Your task to perform on an android device: open app "Walmart Shopping & Grocery" (install if not already installed) and enter user name: "Hans@icloud.com" and password: "executing" Image 0: 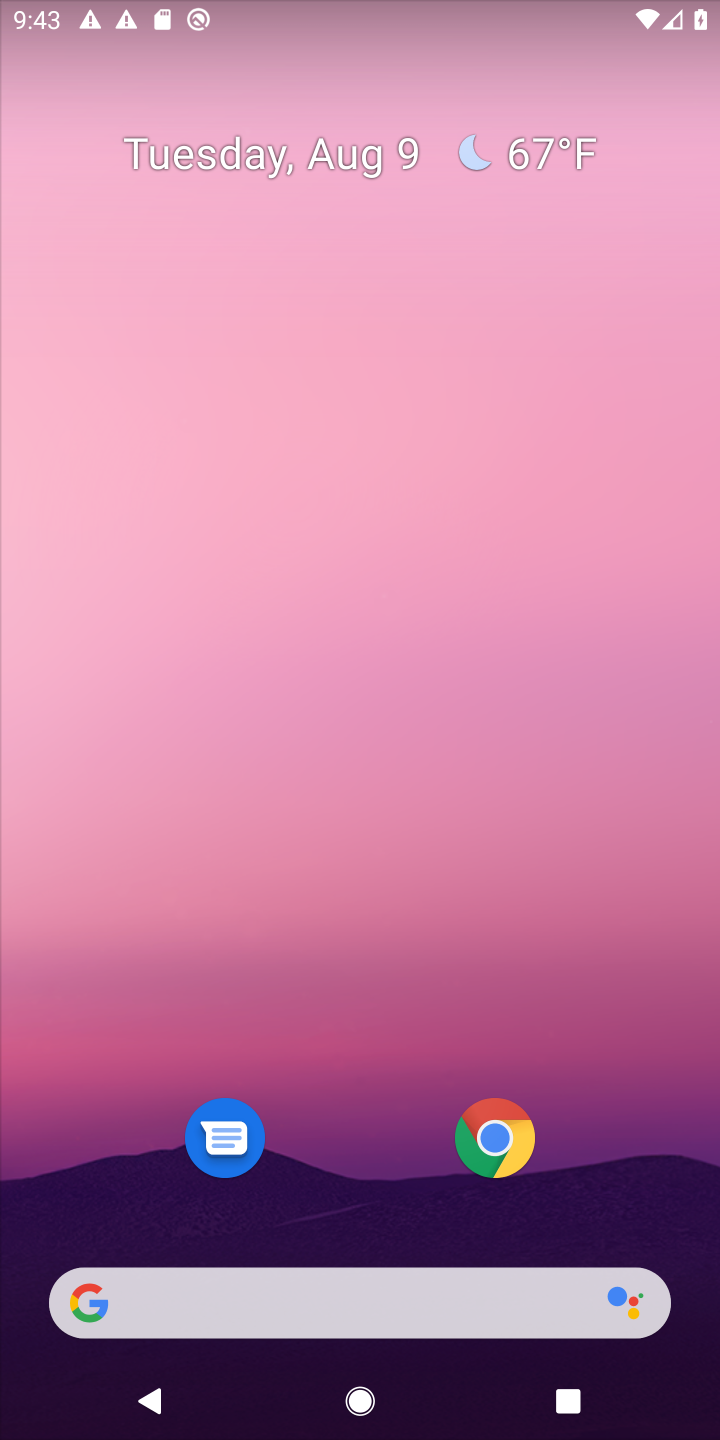
Step 0: drag from (342, 1231) to (369, 3)
Your task to perform on an android device: open app "Walmart Shopping & Grocery" (install if not already installed) and enter user name: "Hans@icloud.com" and password: "executing" Image 1: 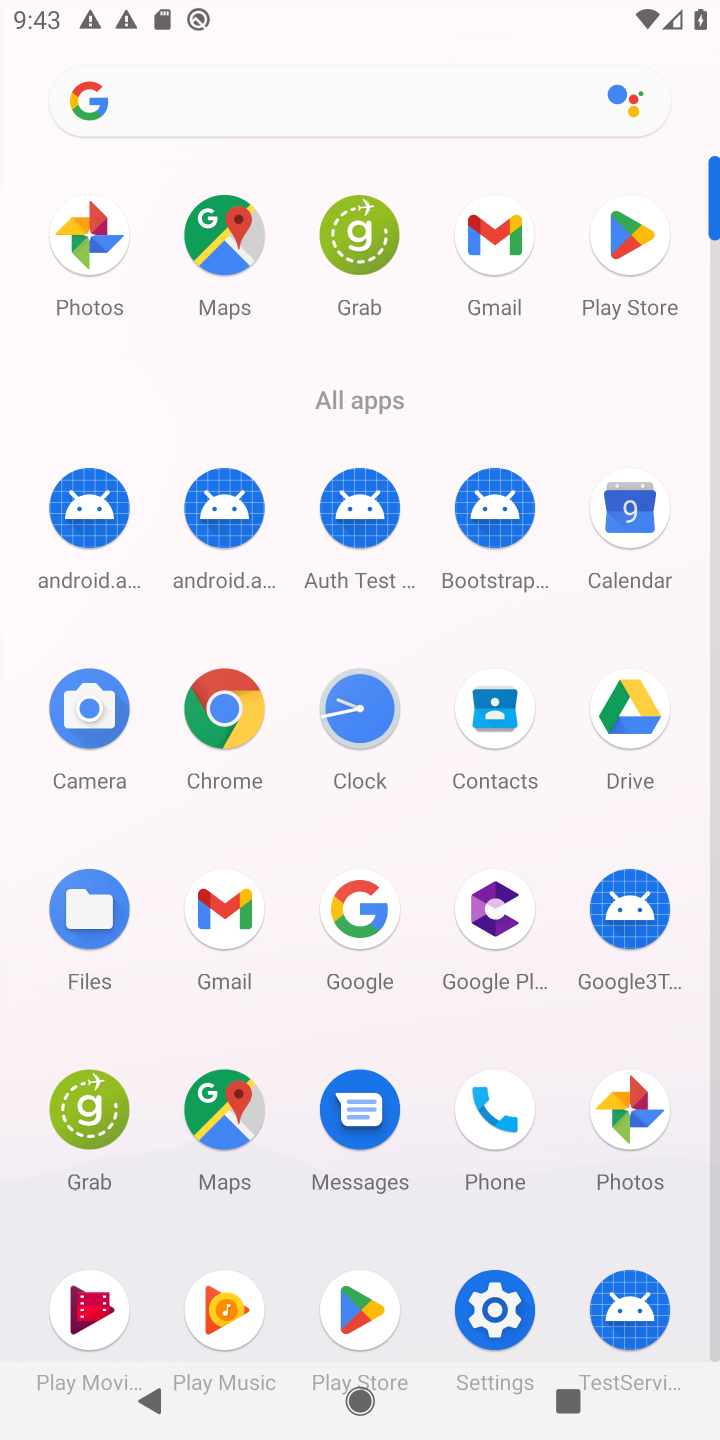
Step 1: click (354, 1299)
Your task to perform on an android device: open app "Walmart Shopping & Grocery" (install if not already installed) and enter user name: "Hans@icloud.com" and password: "executing" Image 2: 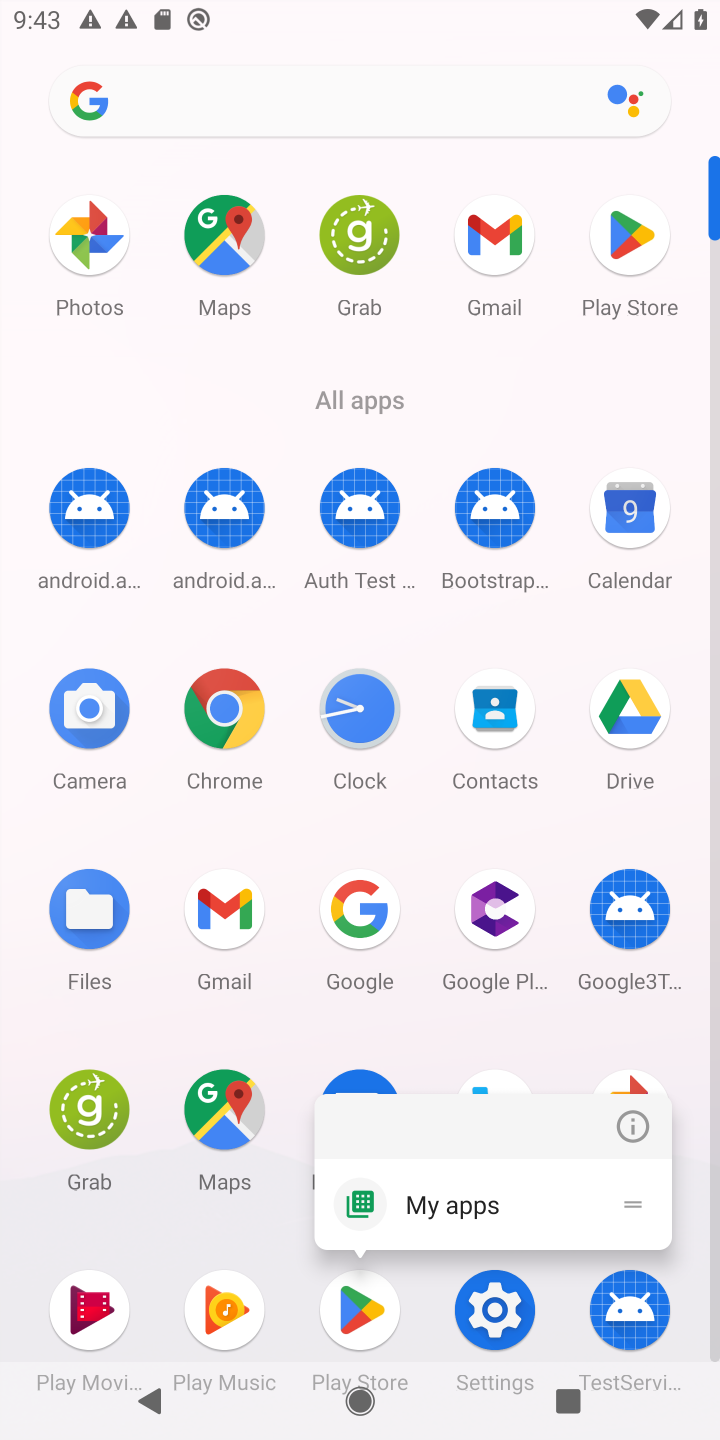
Step 2: click (354, 1296)
Your task to perform on an android device: open app "Walmart Shopping & Grocery" (install if not already installed) and enter user name: "Hans@icloud.com" and password: "executing" Image 3: 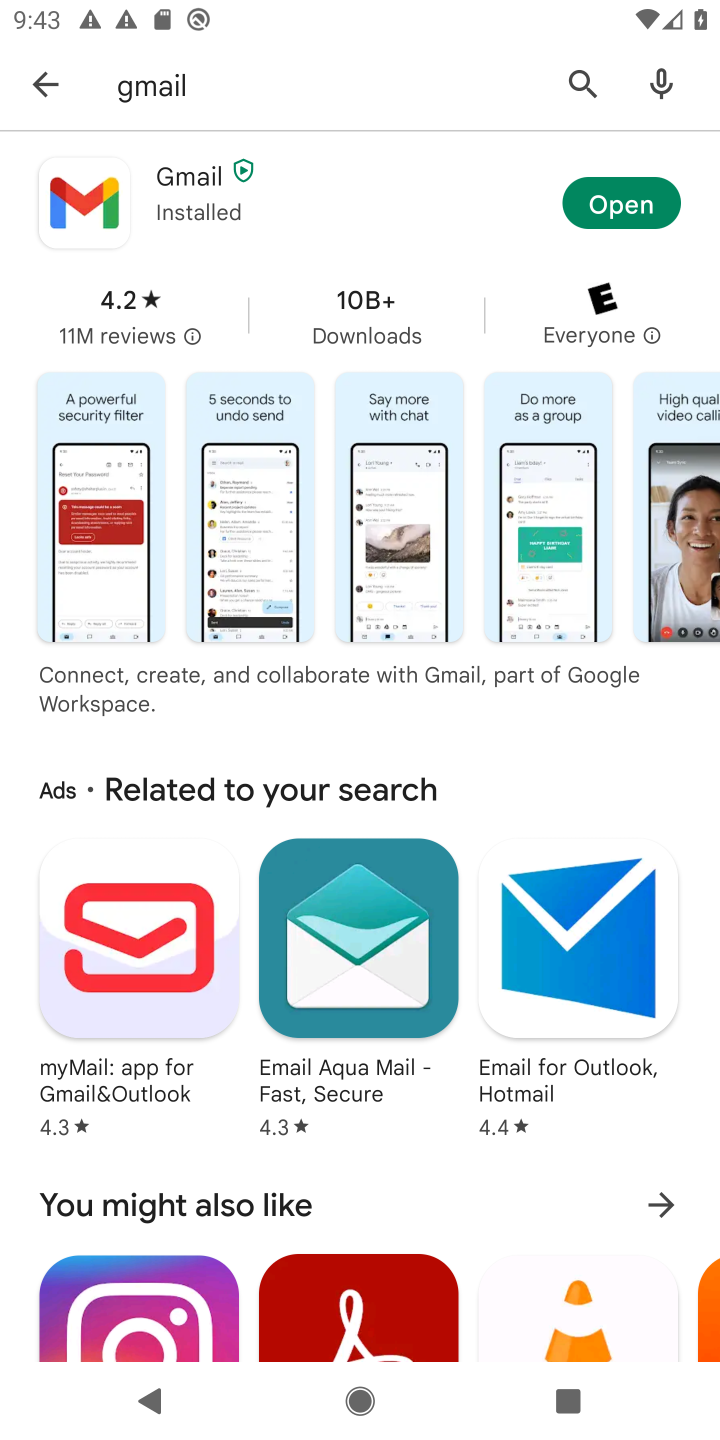
Step 3: click (574, 77)
Your task to perform on an android device: open app "Walmart Shopping & Grocery" (install if not already installed) and enter user name: "Hans@icloud.com" and password: "executing" Image 4: 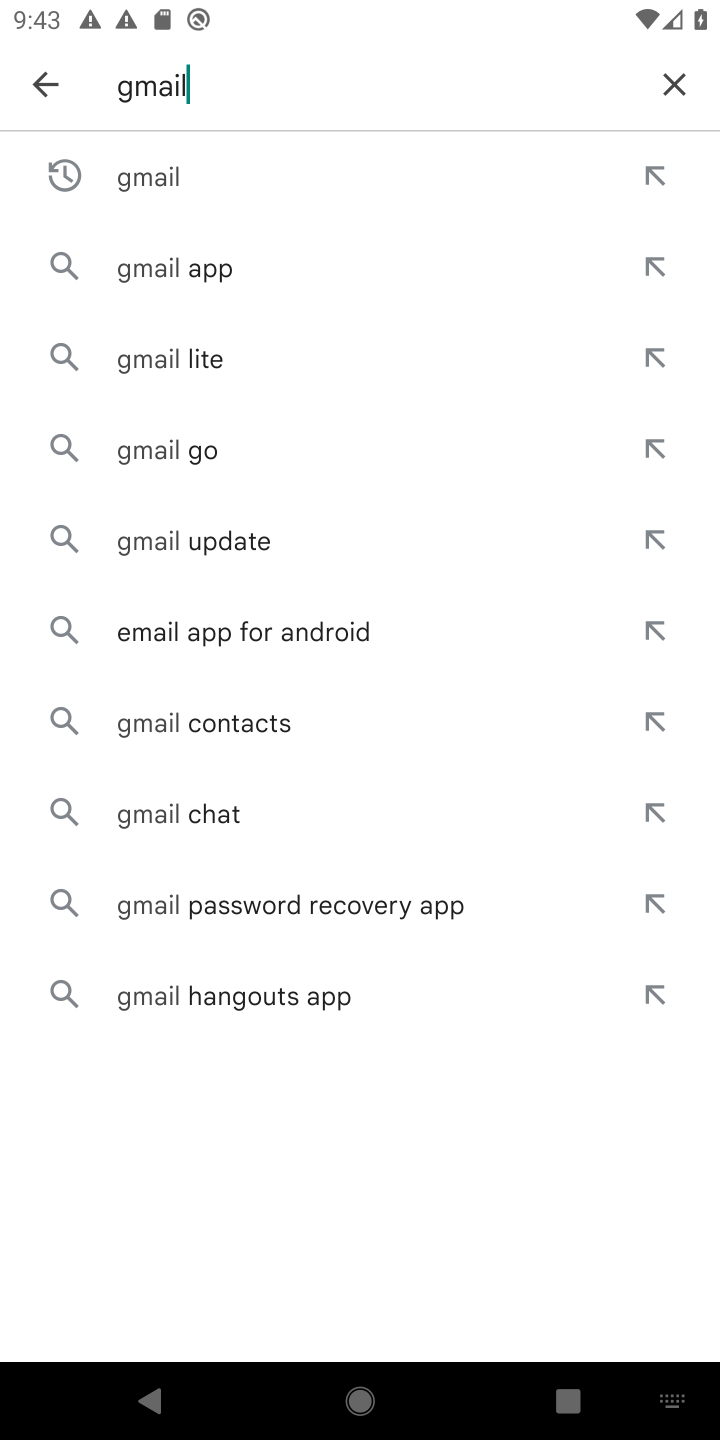
Step 4: click (670, 80)
Your task to perform on an android device: open app "Walmart Shopping & Grocery" (install if not already installed) and enter user name: "Hans@icloud.com" and password: "executing" Image 5: 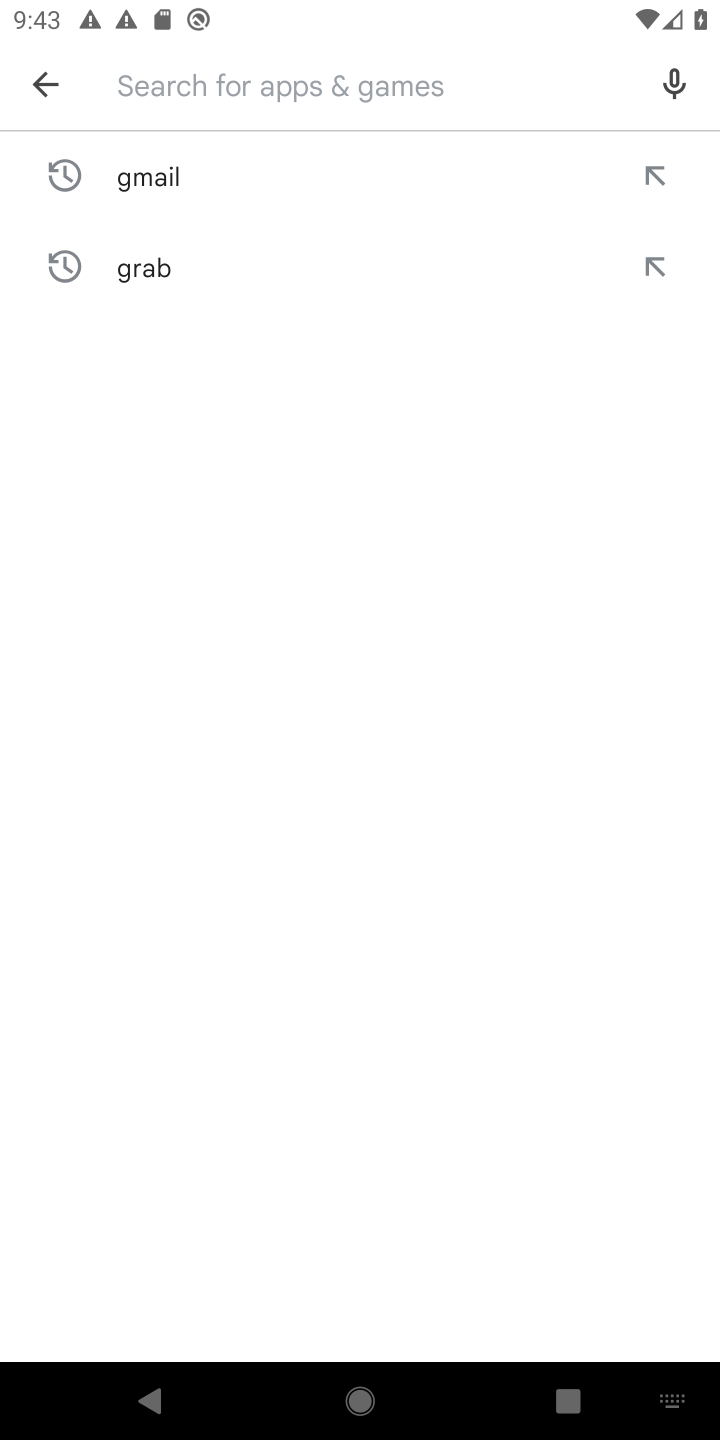
Step 5: type "Walmart Shopping & Grocery"
Your task to perform on an android device: open app "Walmart Shopping & Grocery" (install if not already installed) and enter user name: "Hans@icloud.com" and password: "executing" Image 6: 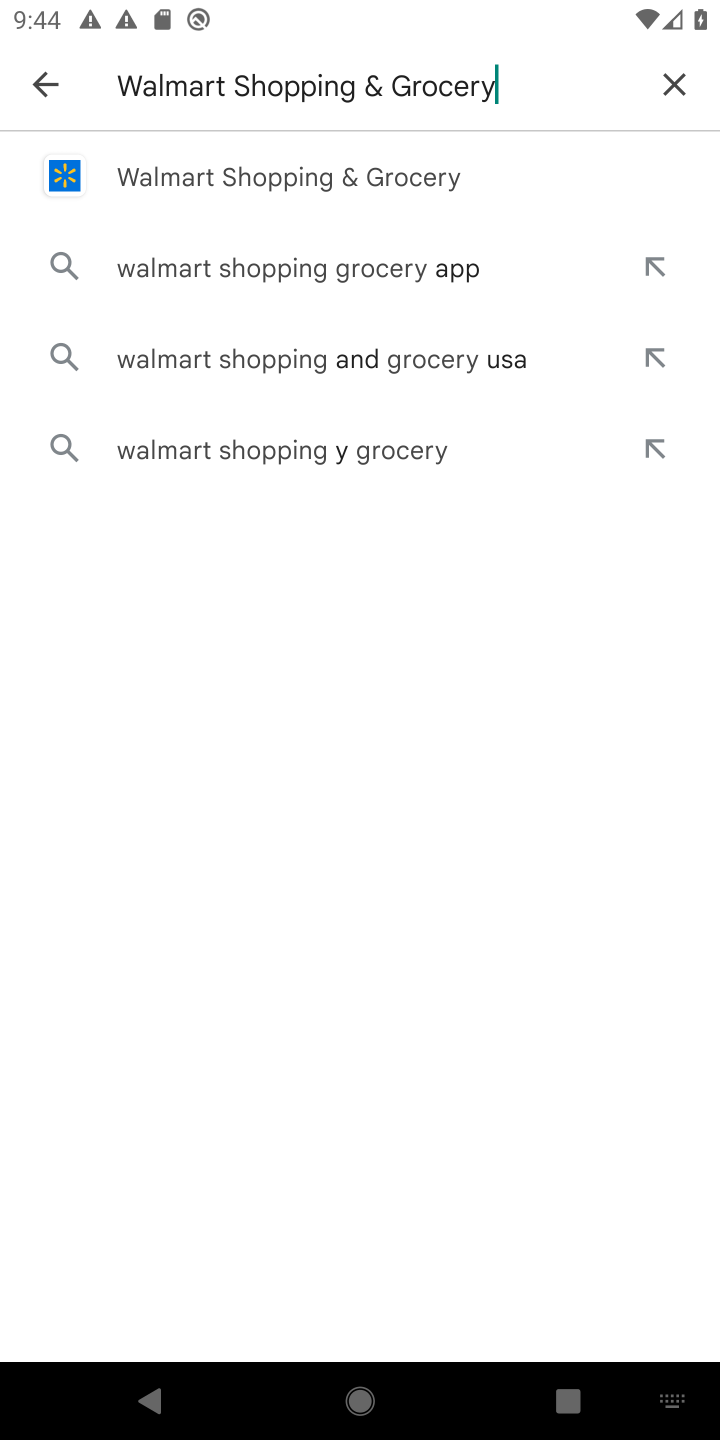
Step 6: click (142, 171)
Your task to perform on an android device: open app "Walmart Shopping & Grocery" (install if not already installed) and enter user name: "Hans@icloud.com" and password: "executing" Image 7: 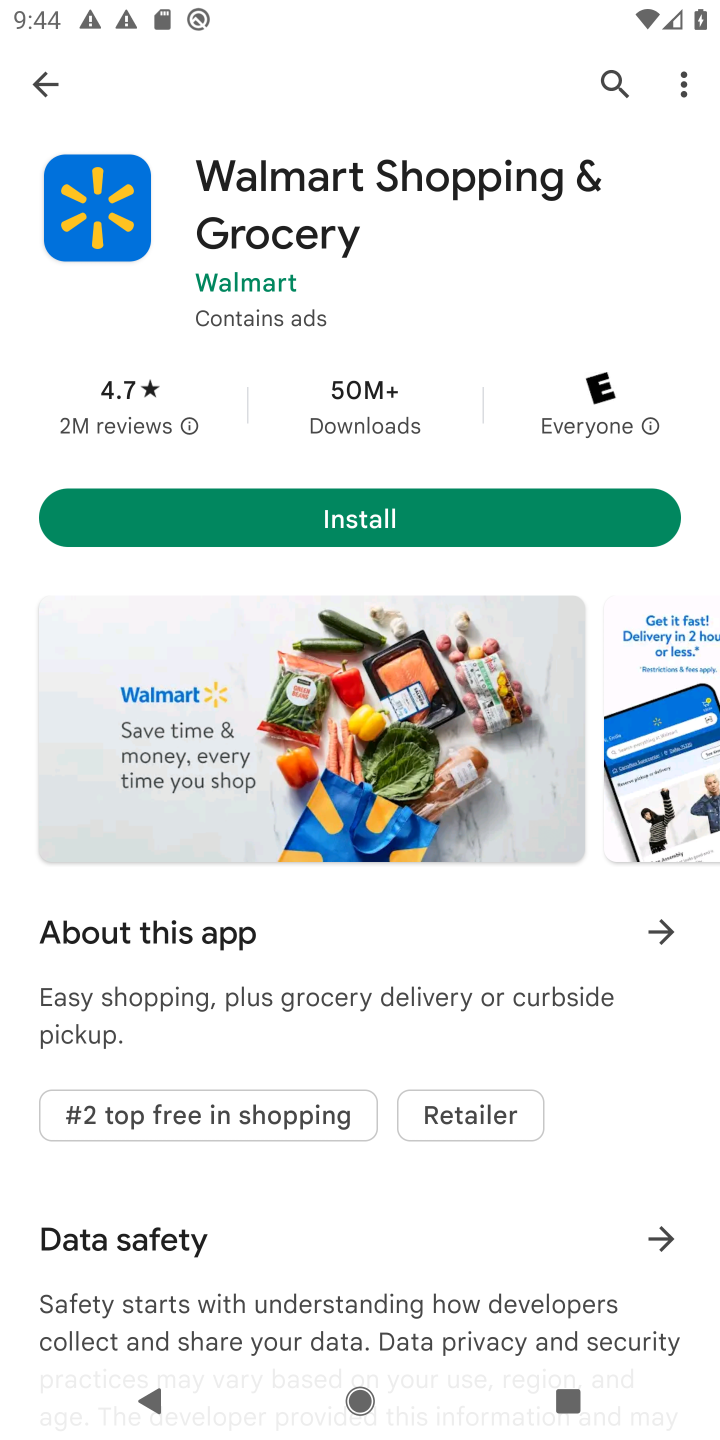
Step 7: click (352, 516)
Your task to perform on an android device: open app "Walmart Shopping & Grocery" (install if not already installed) and enter user name: "Hans@icloud.com" and password: "executing" Image 8: 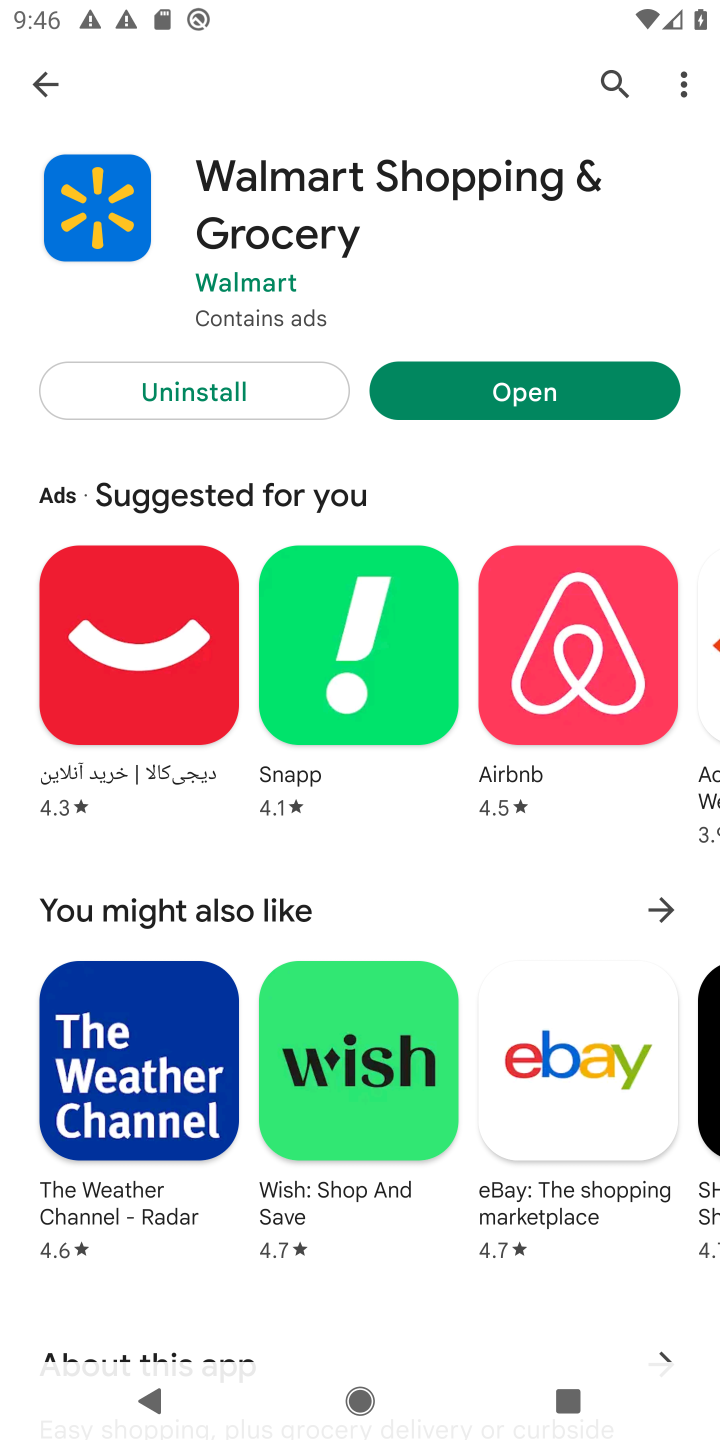
Step 8: click (522, 396)
Your task to perform on an android device: open app "Walmart Shopping & Grocery" (install if not already installed) and enter user name: "Hans@icloud.com" and password: "executing" Image 9: 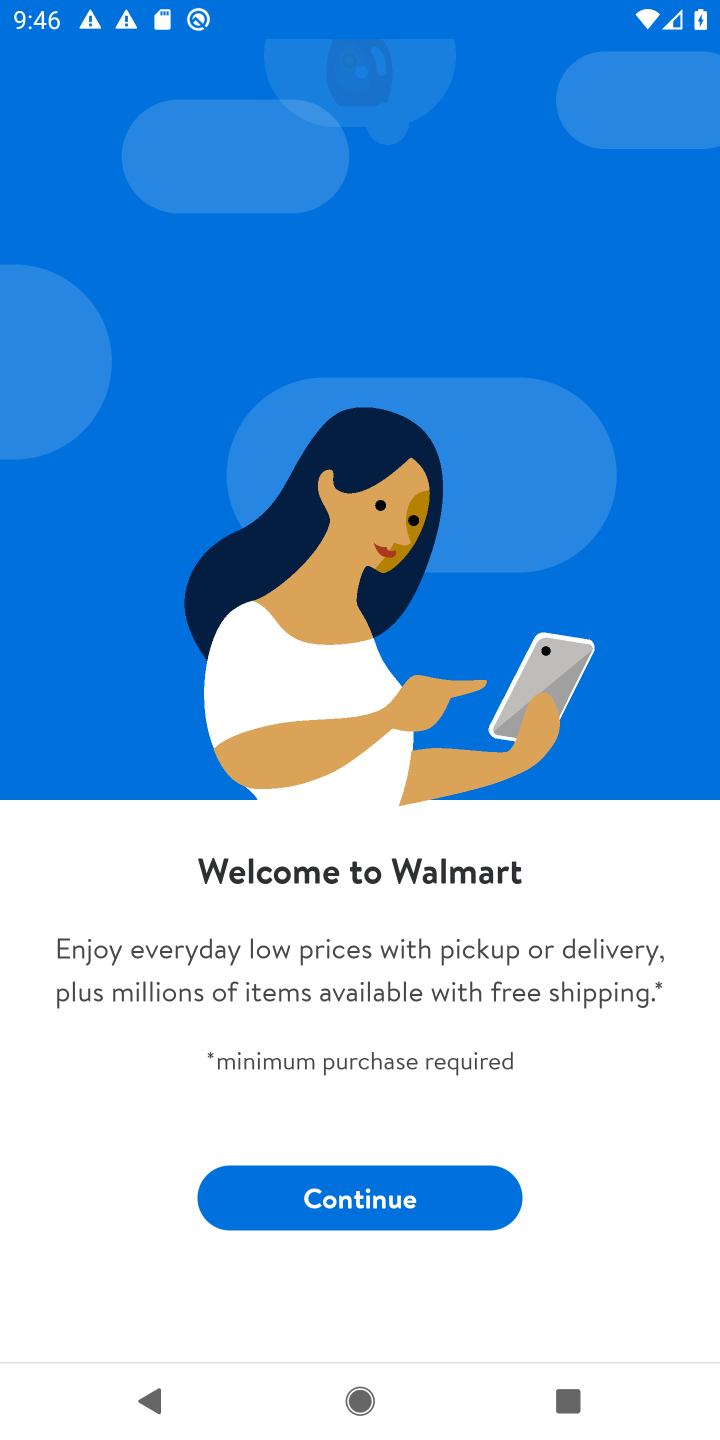
Step 9: click (357, 1195)
Your task to perform on an android device: open app "Walmart Shopping & Grocery" (install if not already installed) and enter user name: "Hans@icloud.com" and password: "executing" Image 10: 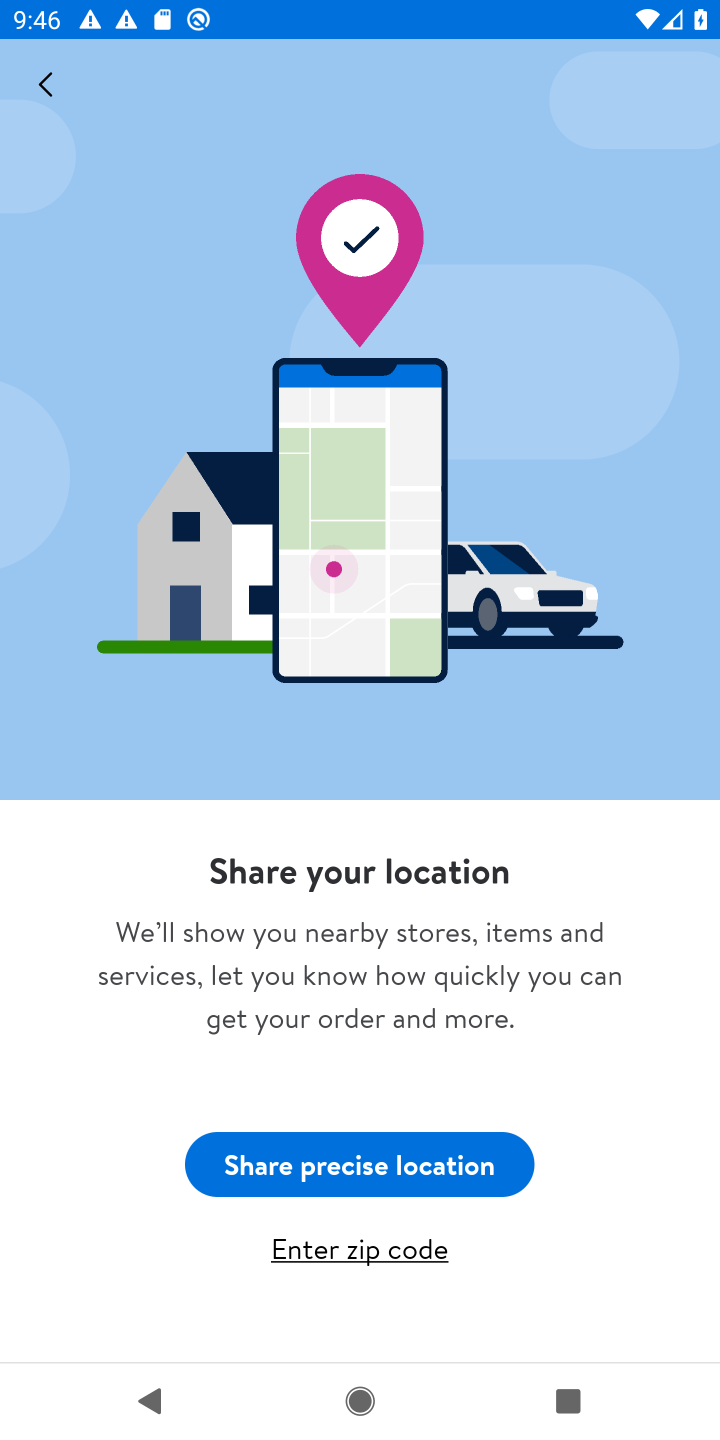
Step 10: click (353, 1161)
Your task to perform on an android device: open app "Walmart Shopping & Grocery" (install if not already installed) and enter user name: "Hans@icloud.com" and password: "executing" Image 11: 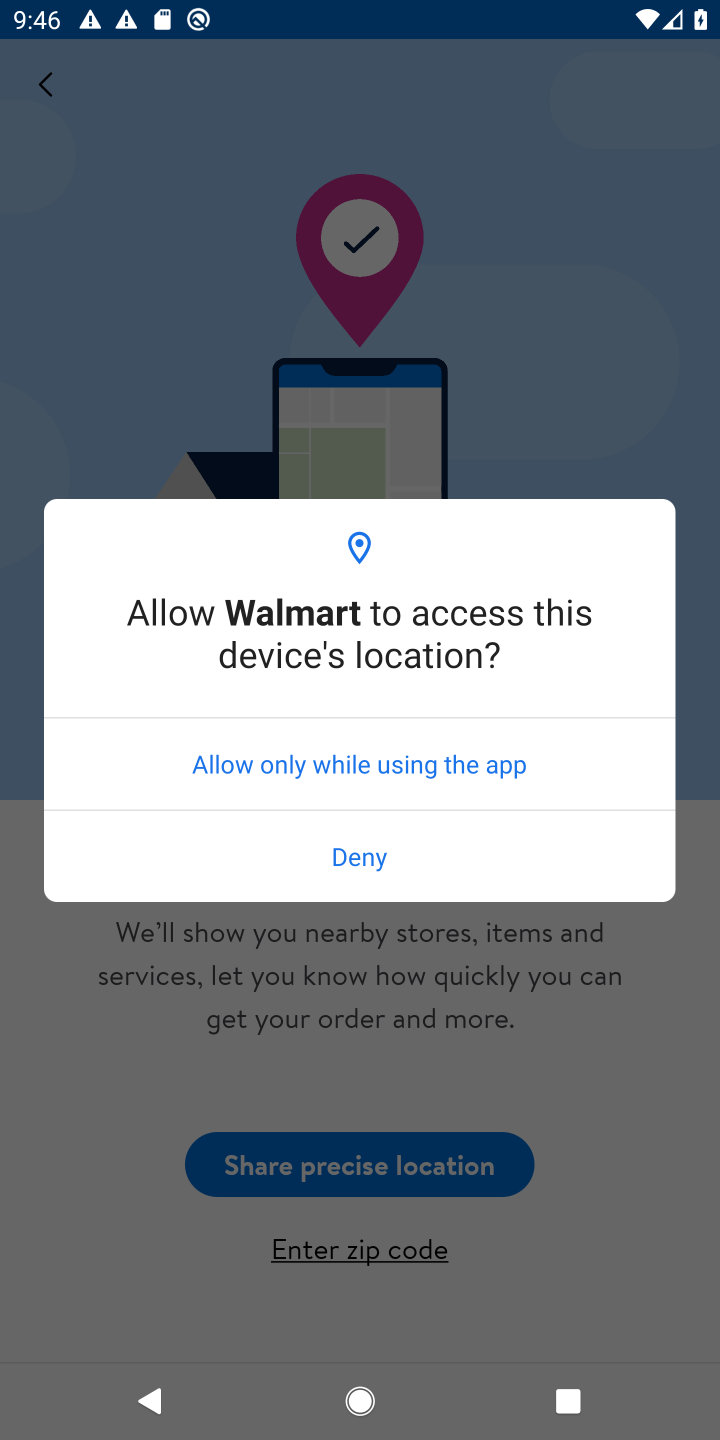
Step 11: click (323, 749)
Your task to perform on an android device: open app "Walmart Shopping & Grocery" (install if not already installed) and enter user name: "Hans@icloud.com" and password: "executing" Image 12: 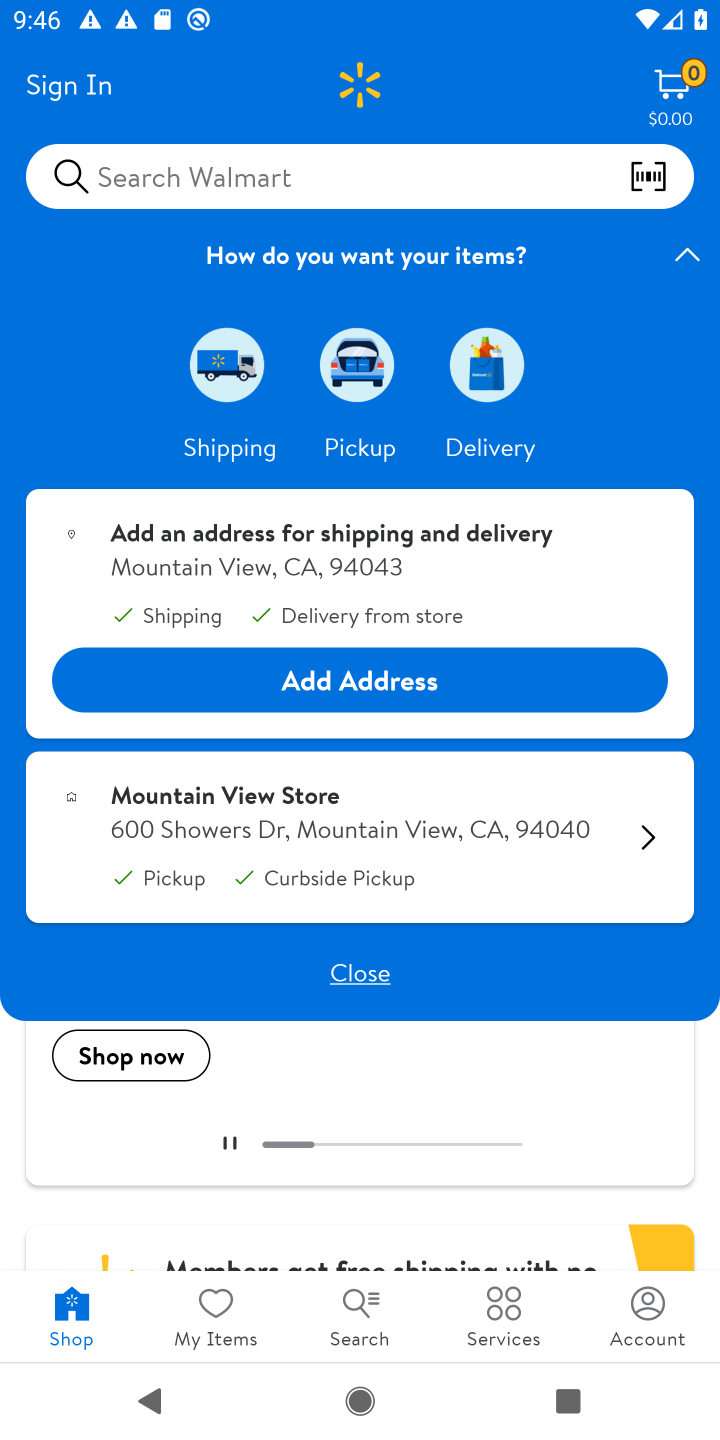
Step 12: click (647, 1302)
Your task to perform on an android device: open app "Walmart Shopping & Grocery" (install if not already installed) and enter user name: "Hans@icloud.com" and password: "executing" Image 13: 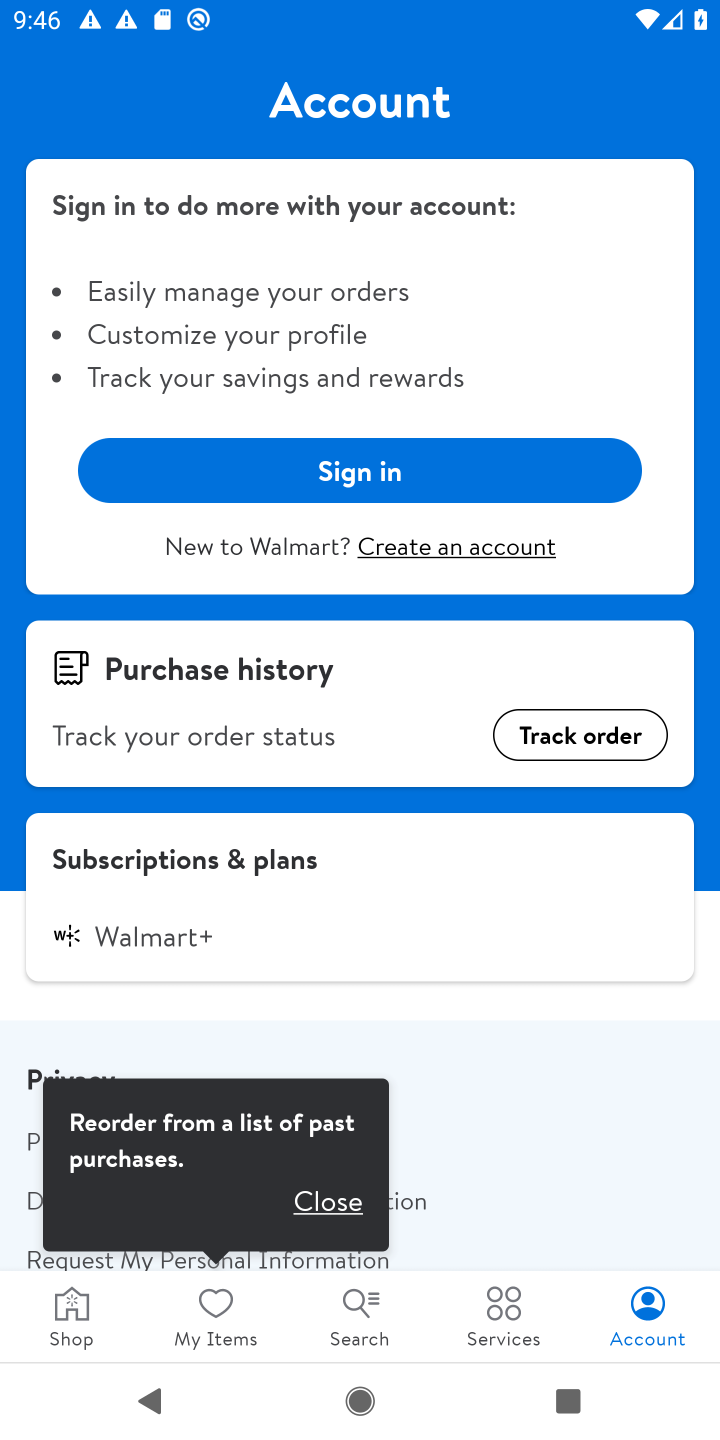
Step 13: click (353, 477)
Your task to perform on an android device: open app "Walmart Shopping & Grocery" (install if not already installed) and enter user name: "Hans@icloud.com" and password: "executing" Image 14: 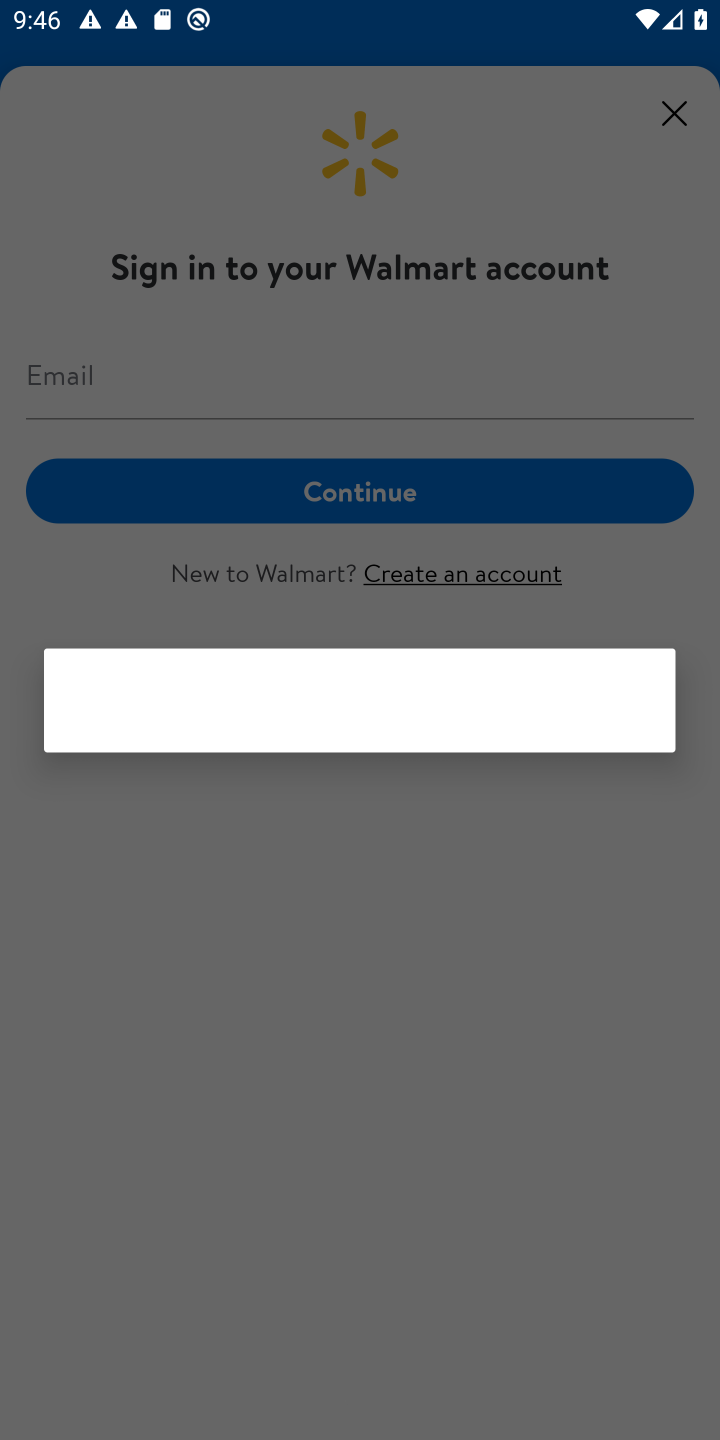
Step 14: click (124, 365)
Your task to perform on an android device: open app "Walmart Shopping & Grocery" (install if not already installed) and enter user name: "Hans@icloud.com" and password: "executing" Image 15: 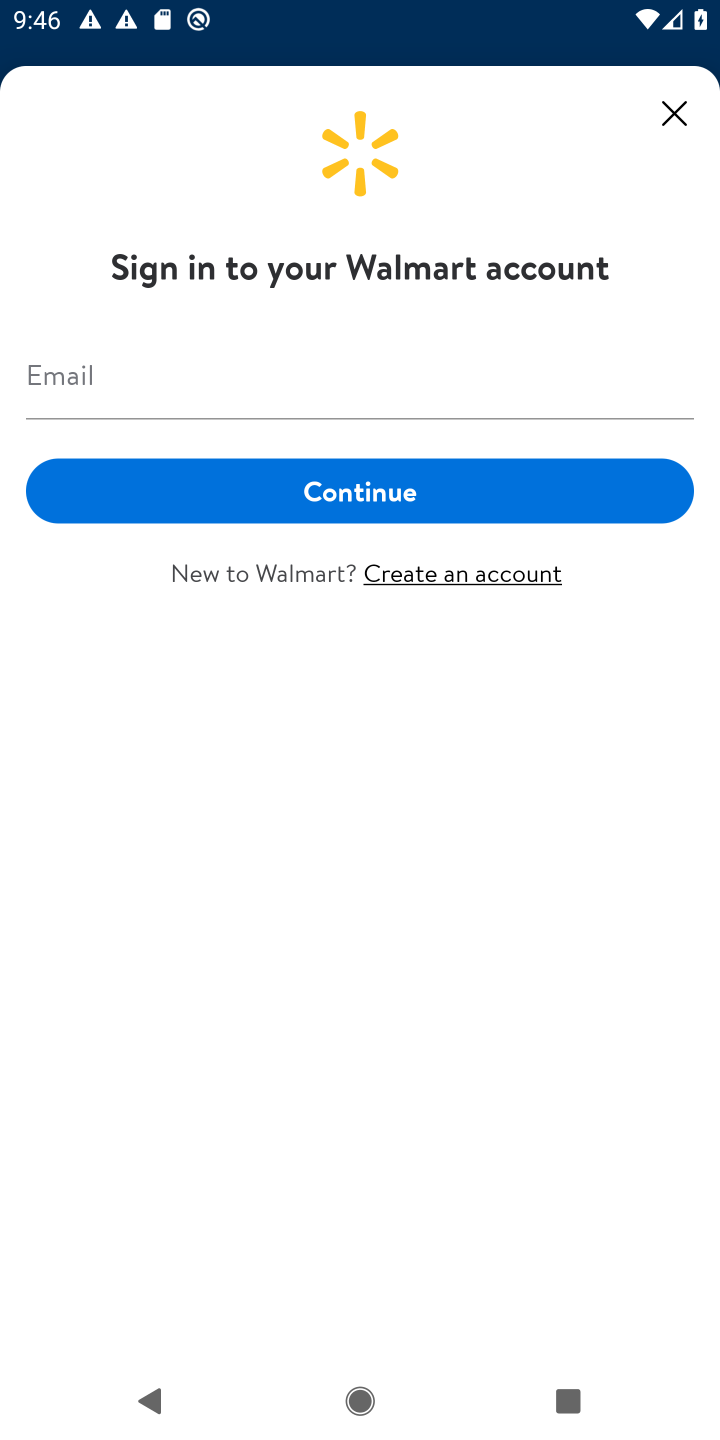
Step 15: click (107, 366)
Your task to perform on an android device: open app "Walmart Shopping & Grocery" (install if not already installed) and enter user name: "Hans@icloud.com" and password: "executing" Image 16: 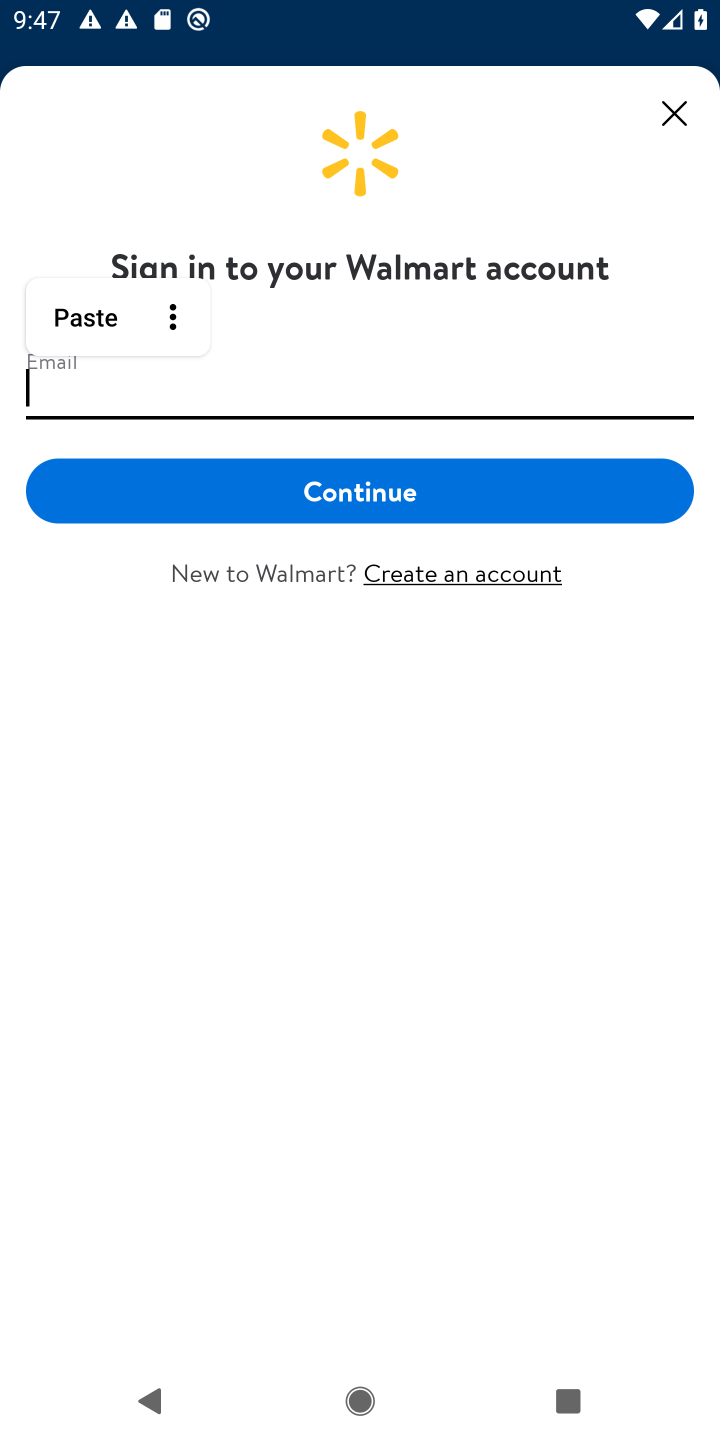
Step 16: type "Hans@icloud.com"
Your task to perform on an android device: open app "Walmart Shopping & Grocery" (install if not already installed) and enter user name: "Hans@icloud.com" and password: "executing" Image 17: 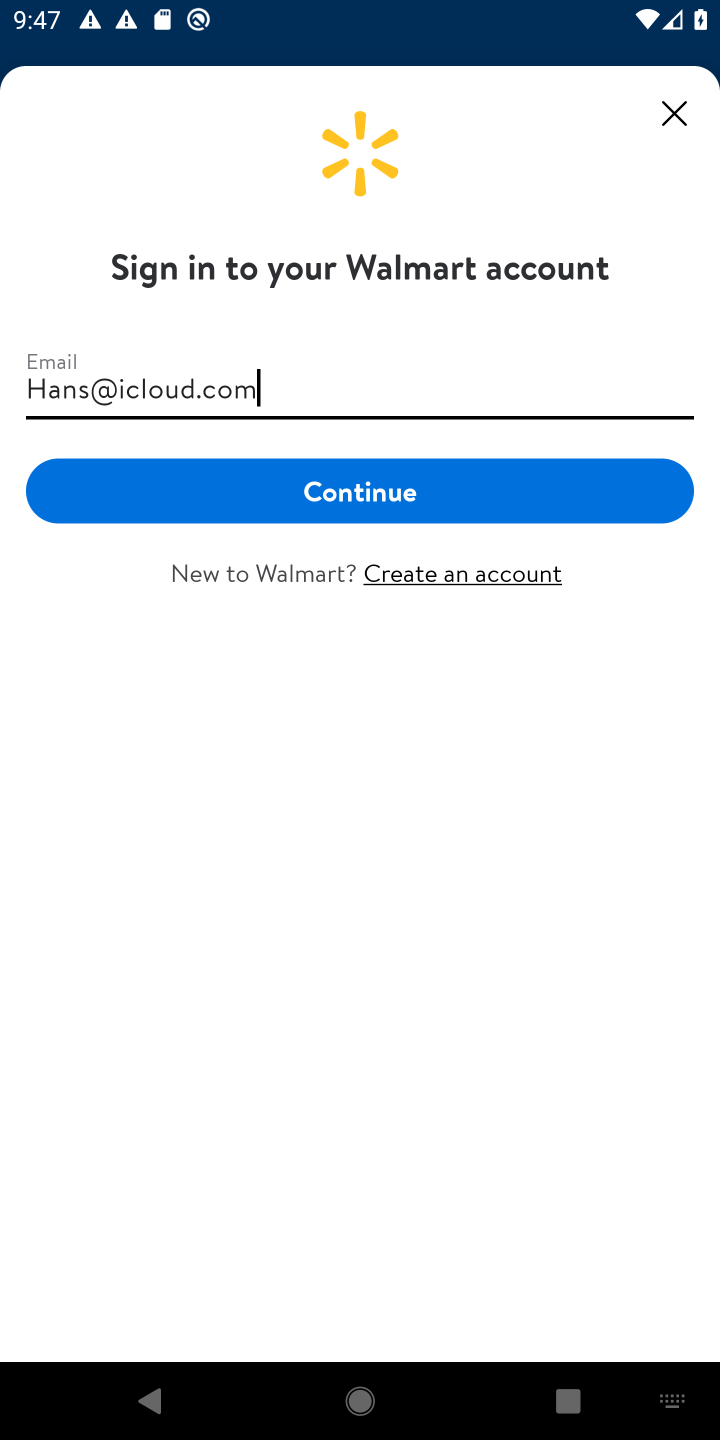
Step 17: click (348, 506)
Your task to perform on an android device: open app "Walmart Shopping & Grocery" (install if not already installed) and enter user name: "Hans@icloud.com" and password: "executing" Image 18: 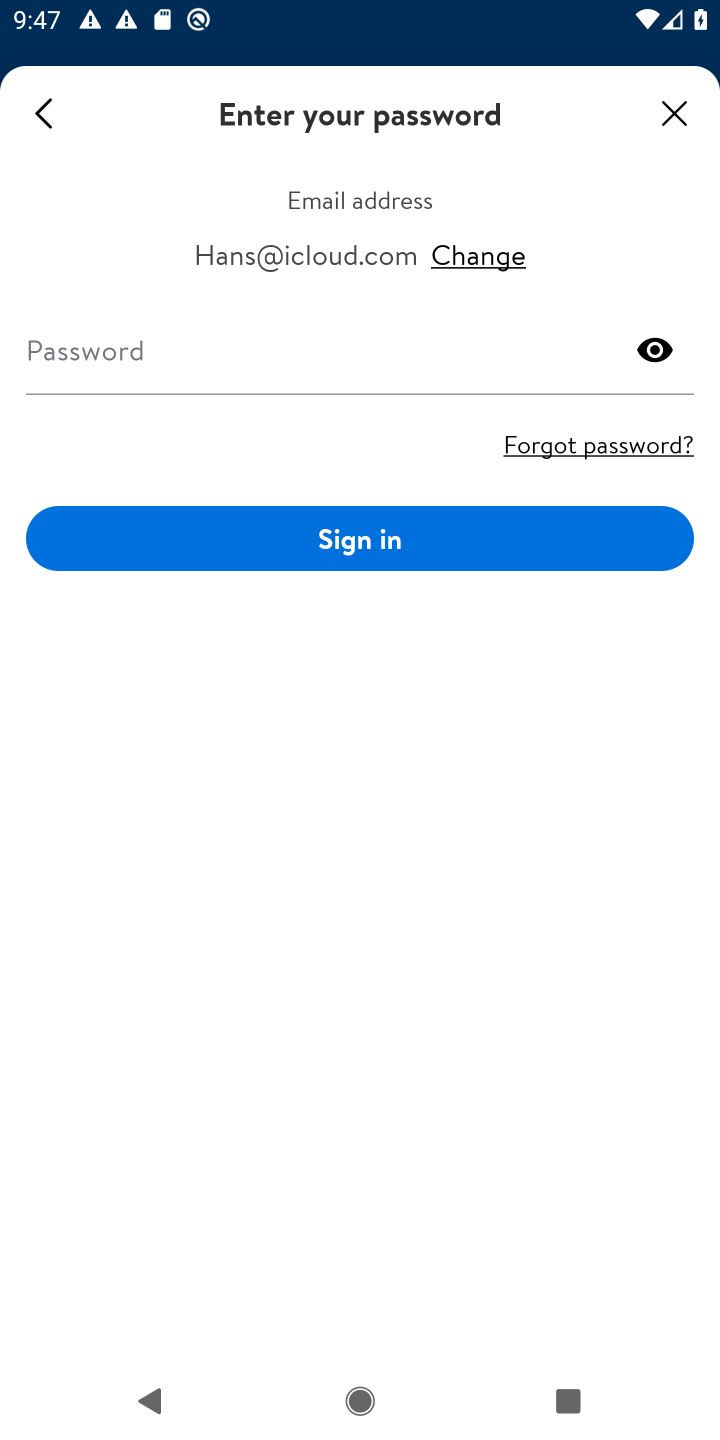
Step 18: click (201, 360)
Your task to perform on an android device: open app "Walmart Shopping & Grocery" (install if not already installed) and enter user name: "Hans@icloud.com" and password: "executing" Image 19: 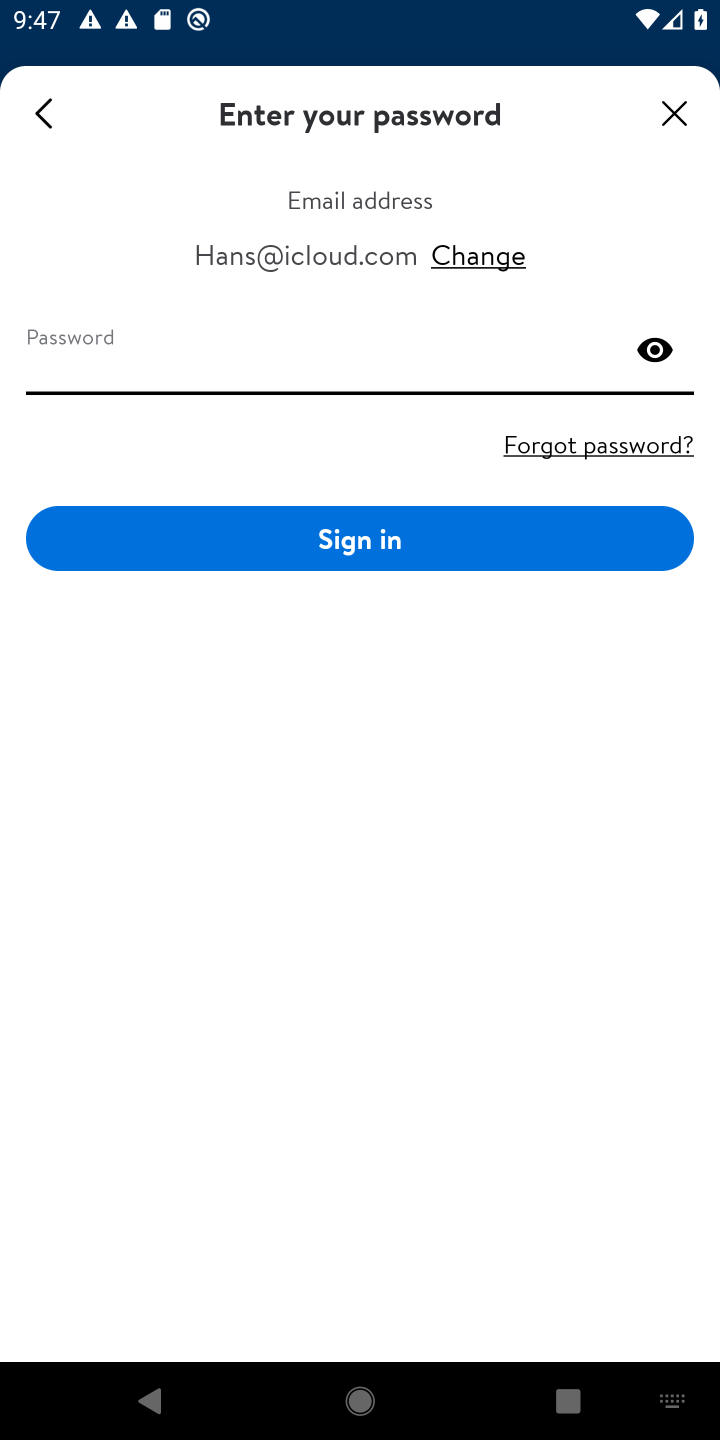
Step 19: type "executing"
Your task to perform on an android device: open app "Walmart Shopping & Grocery" (install if not already installed) and enter user name: "Hans@icloud.com" and password: "executing" Image 20: 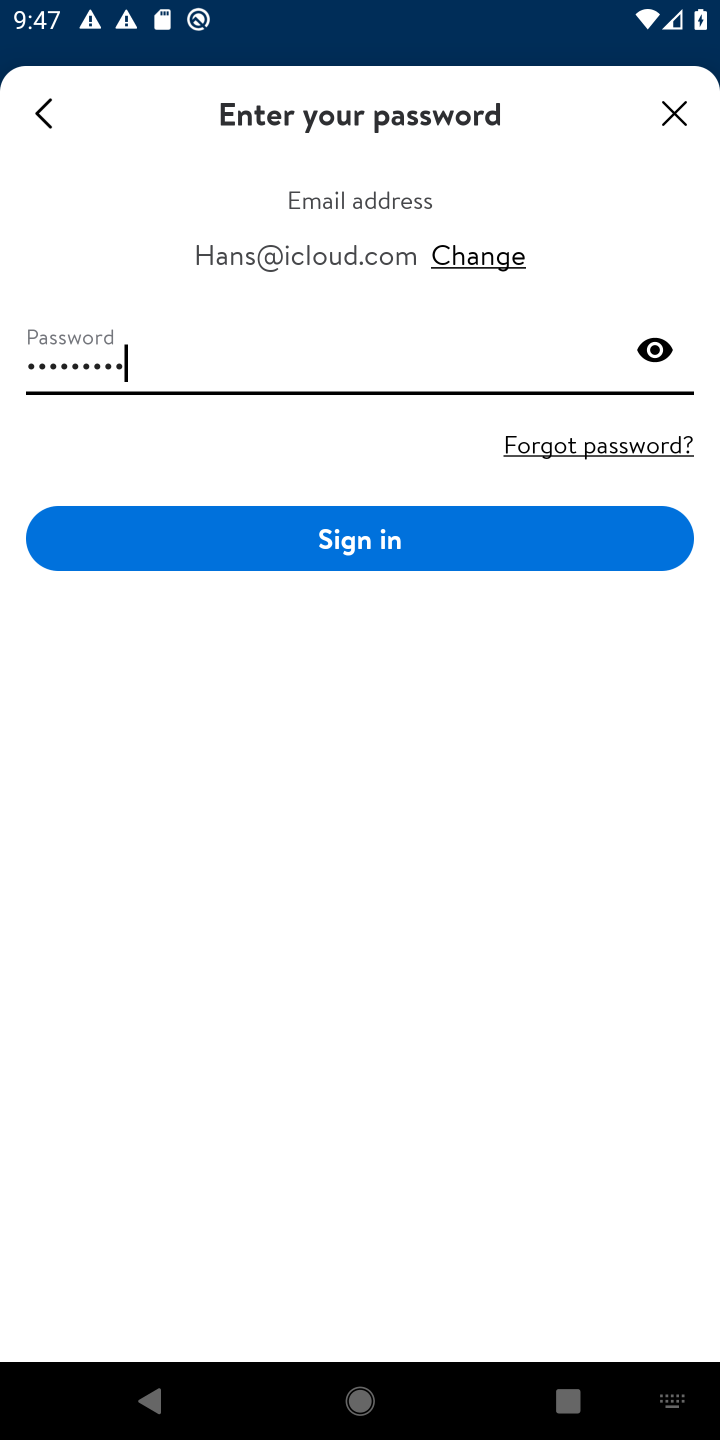
Step 20: click (401, 538)
Your task to perform on an android device: open app "Walmart Shopping & Grocery" (install if not already installed) and enter user name: "Hans@icloud.com" and password: "executing" Image 21: 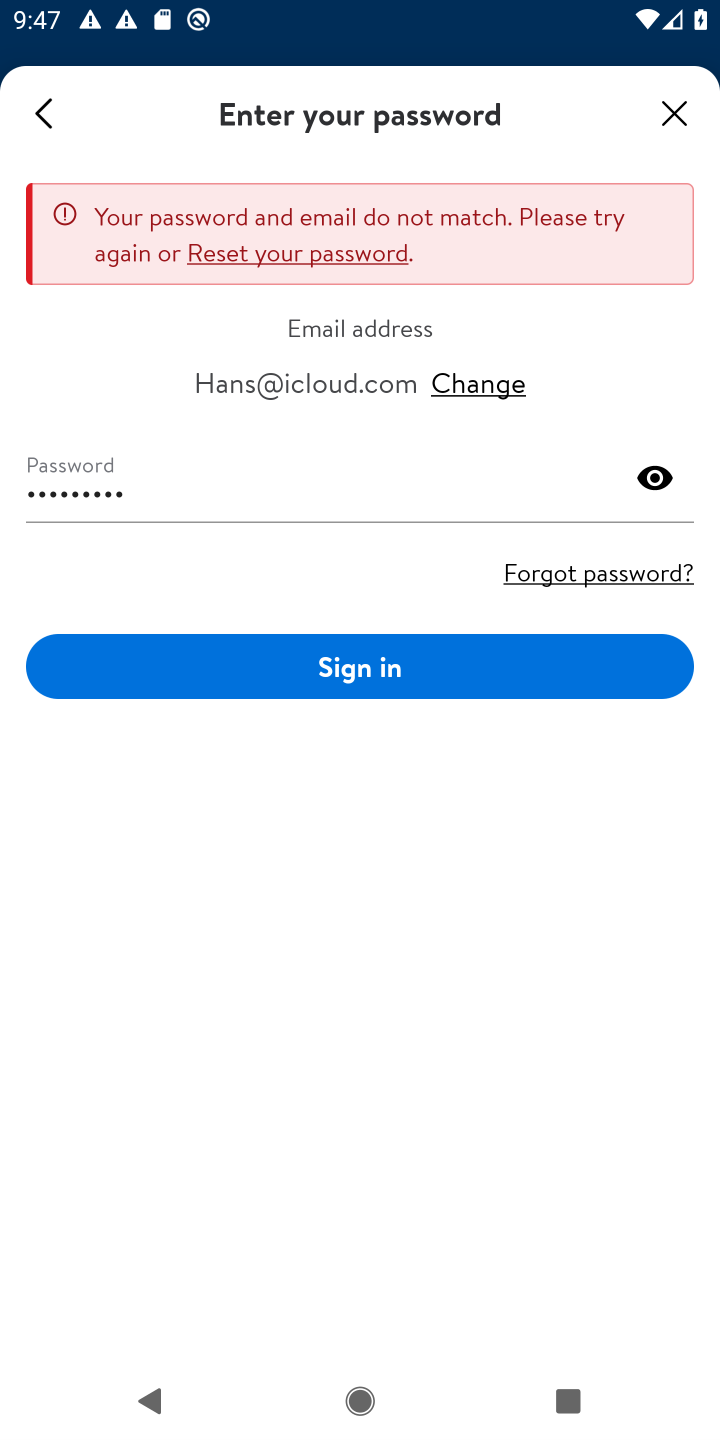
Step 21: task complete